Your task to perform on an android device: change the clock display to analog Image 0: 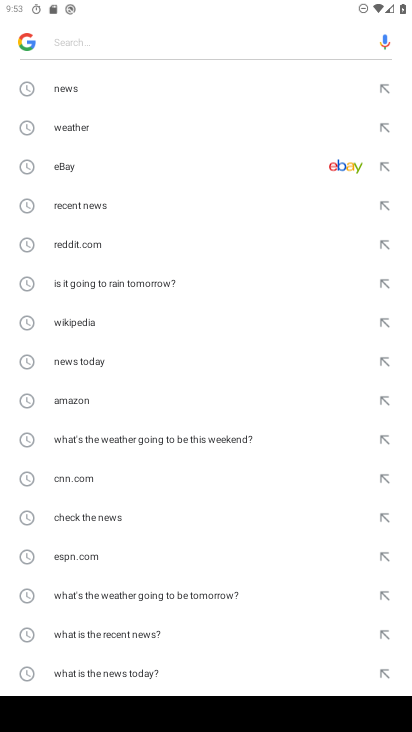
Step 0: press home button
Your task to perform on an android device: change the clock display to analog Image 1: 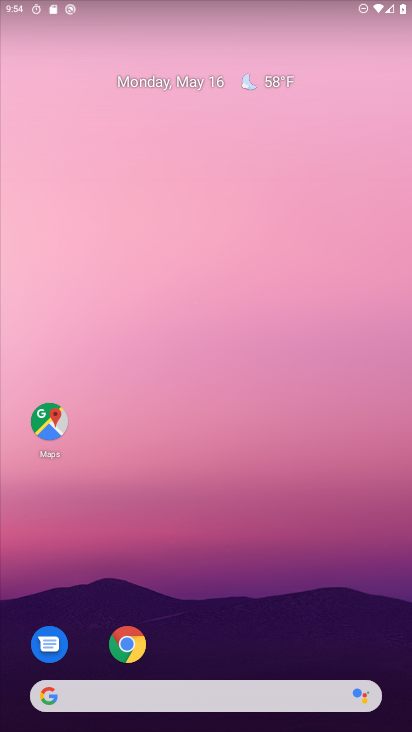
Step 1: drag from (215, 687) to (283, 34)
Your task to perform on an android device: change the clock display to analog Image 2: 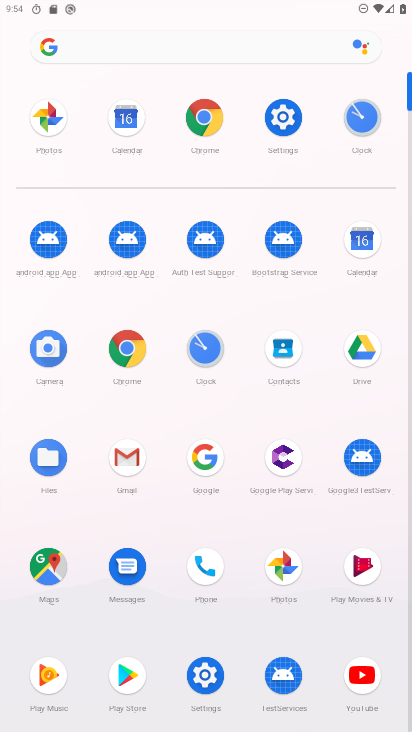
Step 2: click (210, 354)
Your task to perform on an android device: change the clock display to analog Image 3: 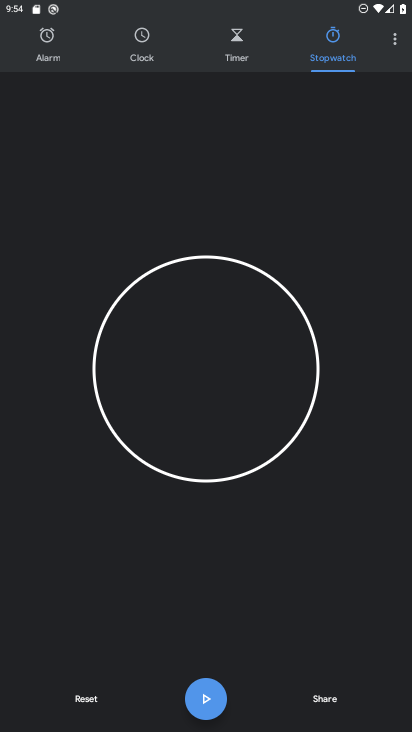
Step 3: click (390, 42)
Your task to perform on an android device: change the clock display to analog Image 4: 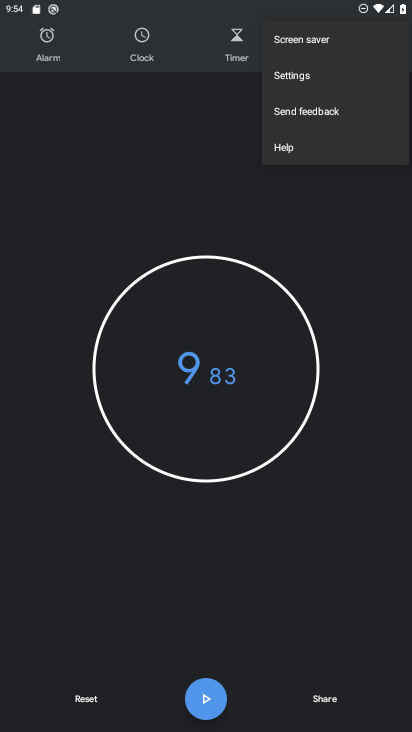
Step 4: click (300, 74)
Your task to perform on an android device: change the clock display to analog Image 5: 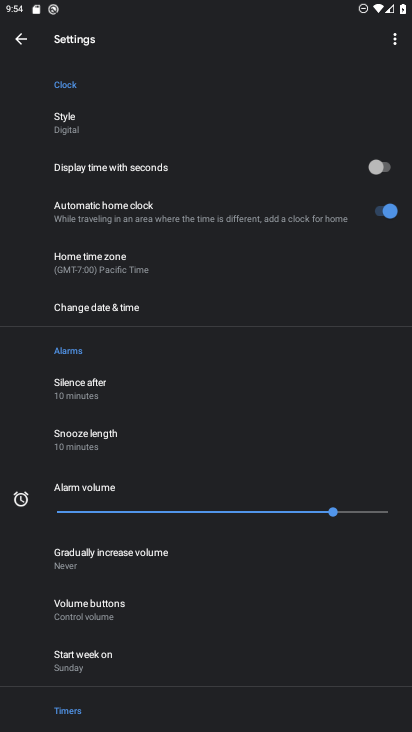
Step 5: click (86, 139)
Your task to perform on an android device: change the clock display to analog Image 6: 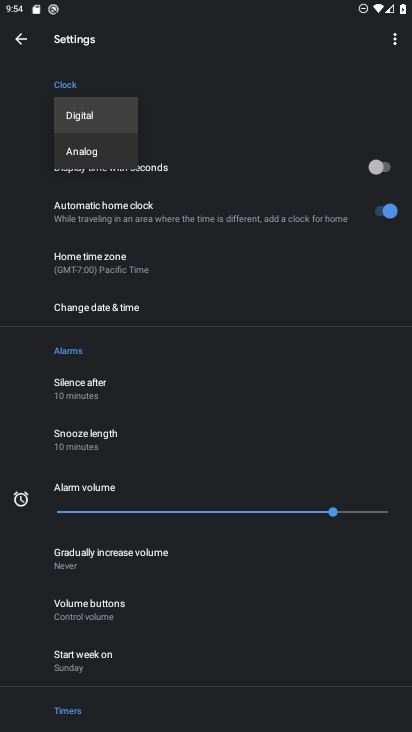
Step 6: click (105, 158)
Your task to perform on an android device: change the clock display to analog Image 7: 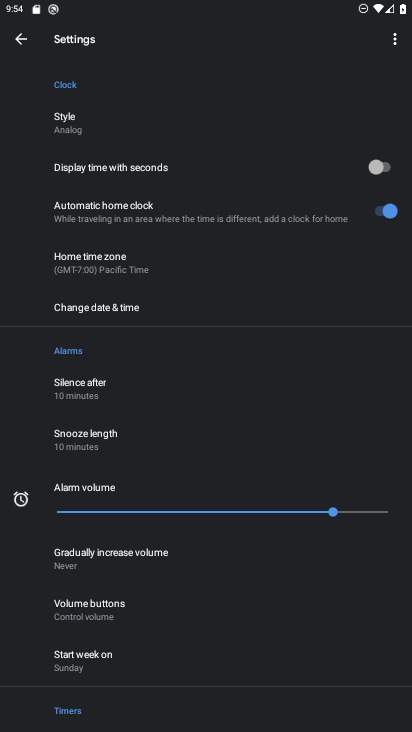
Step 7: task complete